Your task to perform on an android device: turn off sleep mode Image 0: 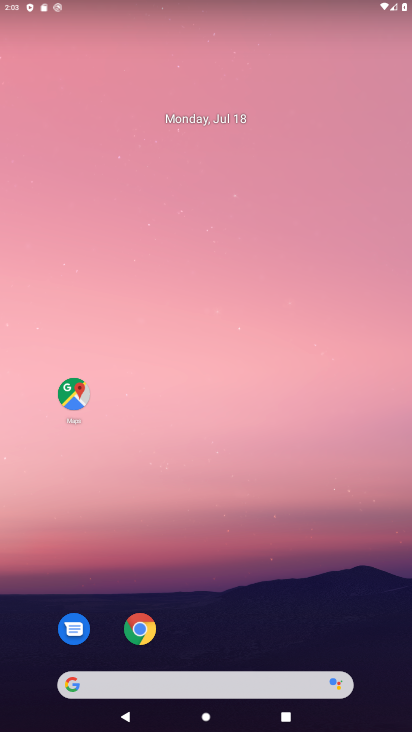
Step 0: drag from (202, 609) to (226, 236)
Your task to perform on an android device: turn off sleep mode Image 1: 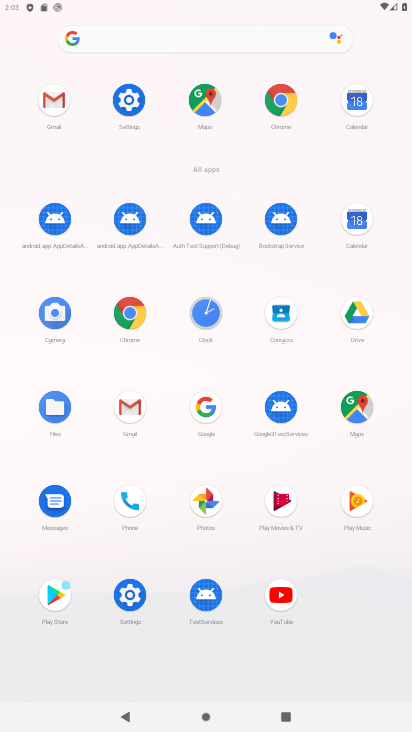
Step 1: click (141, 117)
Your task to perform on an android device: turn off sleep mode Image 2: 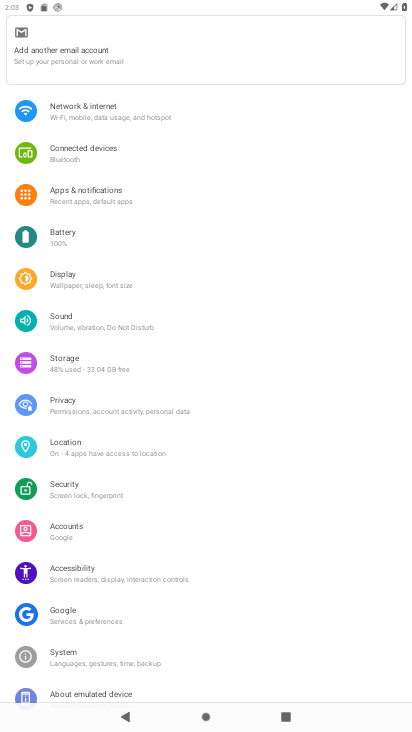
Step 2: click (109, 284)
Your task to perform on an android device: turn off sleep mode Image 3: 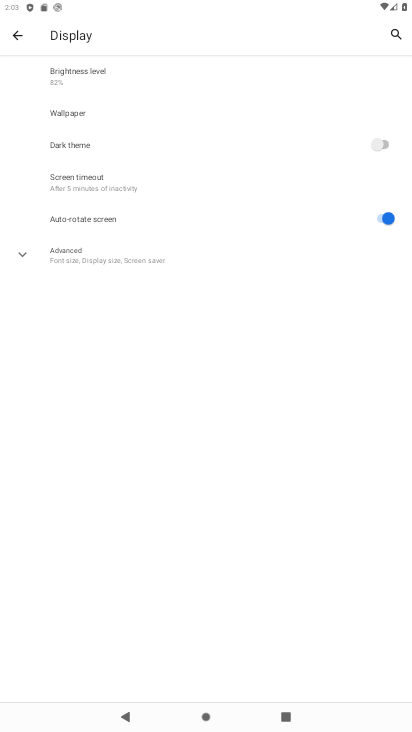
Step 3: click (112, 186)
Your task to perform on an android device: turn off sleep mode Image 4: 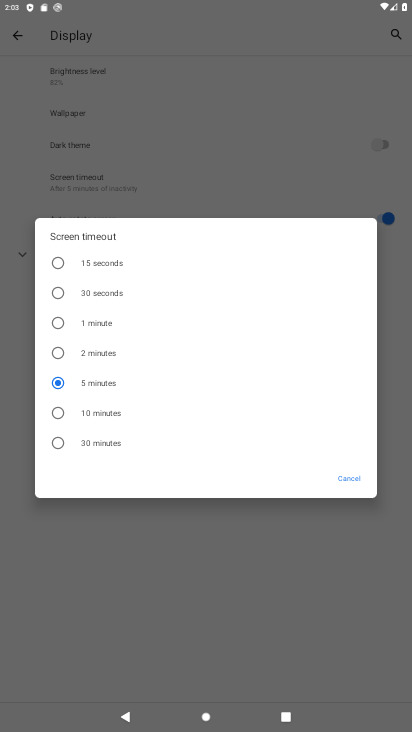
Step 4: click (101, 326)
Your task to perform on an android device: turn off sleep mode Image 5: 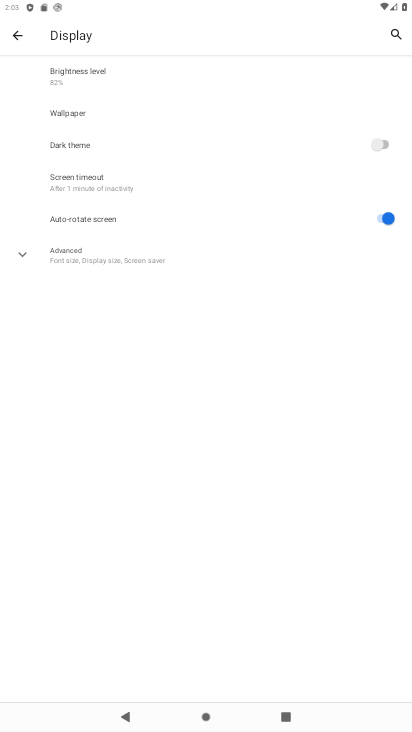
Step 5: task complete